Your task to perform on an android device: Open network settings Image 0: 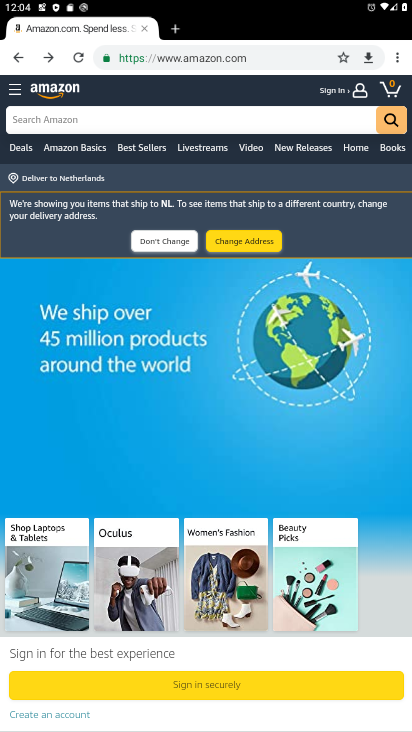
Step 0: press home button
Your task to perform on an android device: Open network settings Image 1: 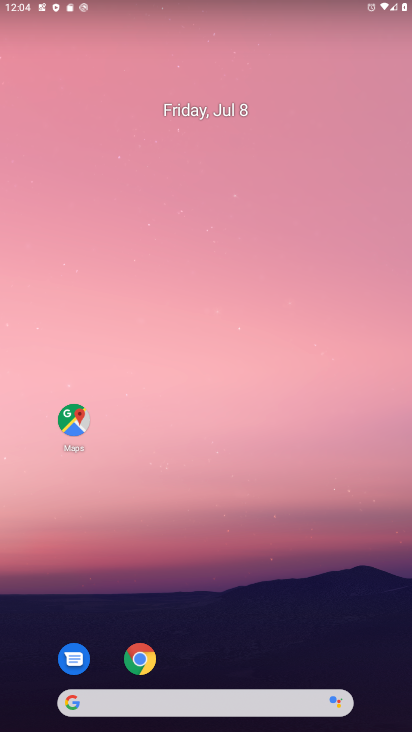
Step 1: drag from (231, 545) to (161, 81)
Your task to perform on an android device: Open network settings Image 2: 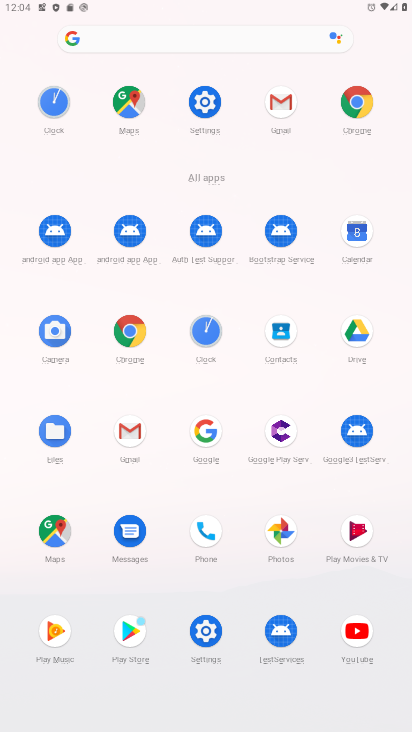
Step 2: click (205, 99)
Your task to perform on an android device: Open network settings Image 3: 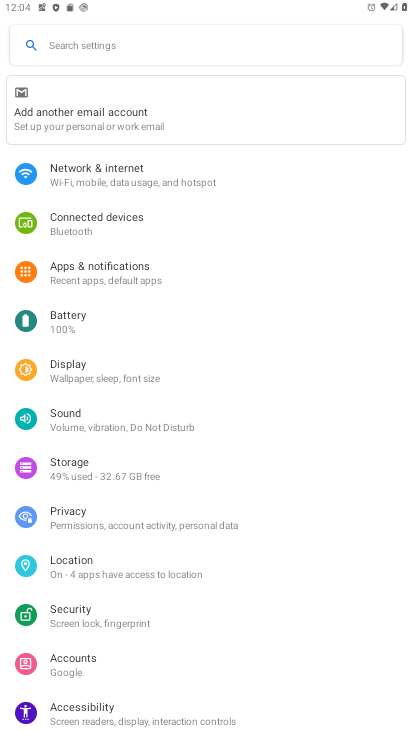
Step 3: click (98, 168)
Your task to perform on an android device: Open network settings Image 4: 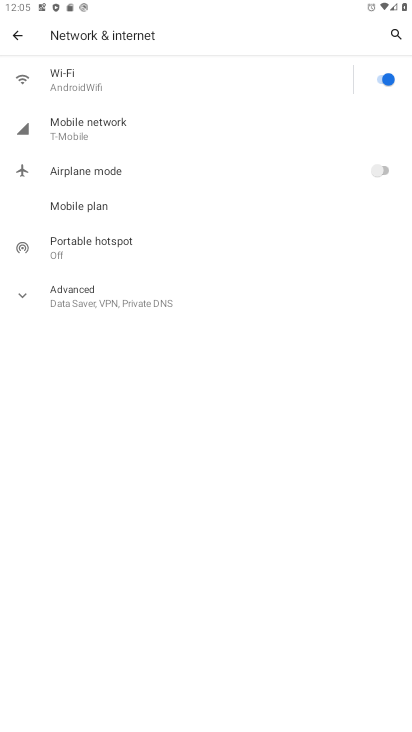
Step 4: task complete